Your task to perform on an android device: set default search engine in the chrome app Image 0: 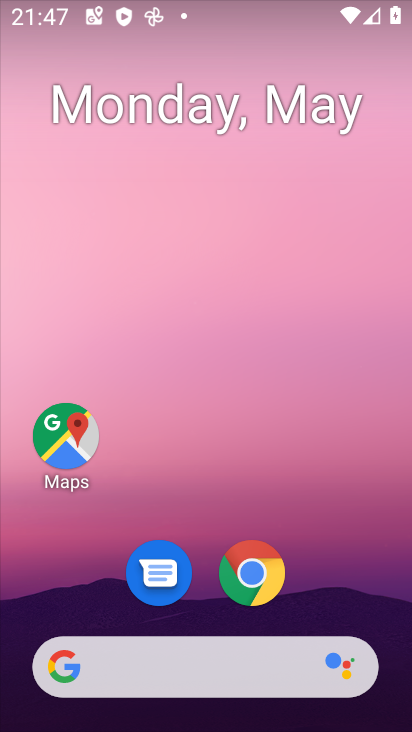
Step 0: drag from (355, 574) to (331, 503)
Your task to perform on an android device: set default search engine in the chrome app Image 1: 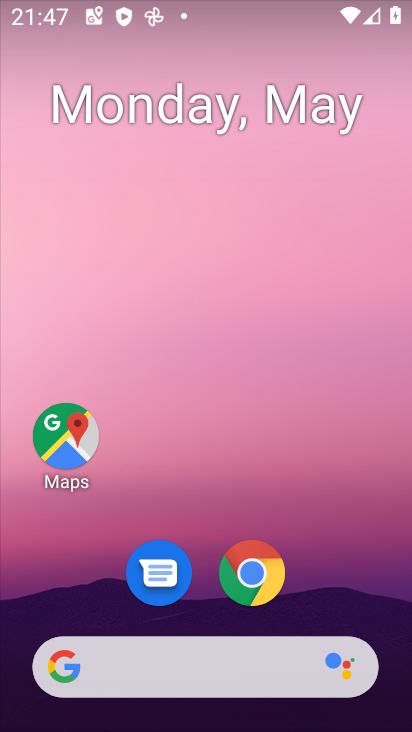
Step 1: click (254, 578)
Your task to perform on an android device: set default search engine in the chrome app Image 2: 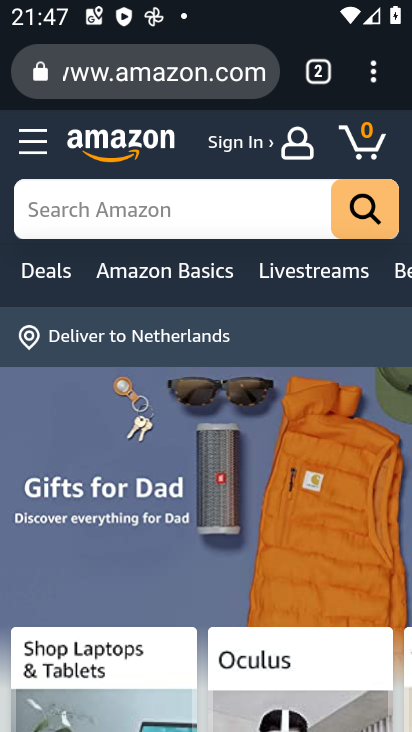
Step 2: click (370, 73)
Your task to perform on an android device: set default search engine in the chrome app Image 3: 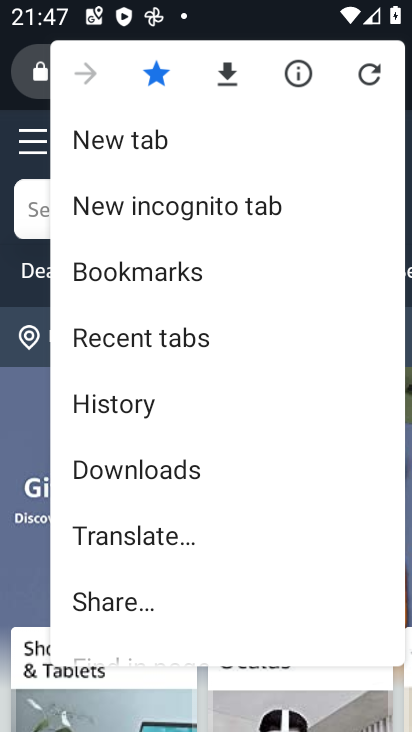
Step 3: drag from (246, 539) to (258, 282)
Your task to perform on an android device: set default search engine in the chrome app Image 4: 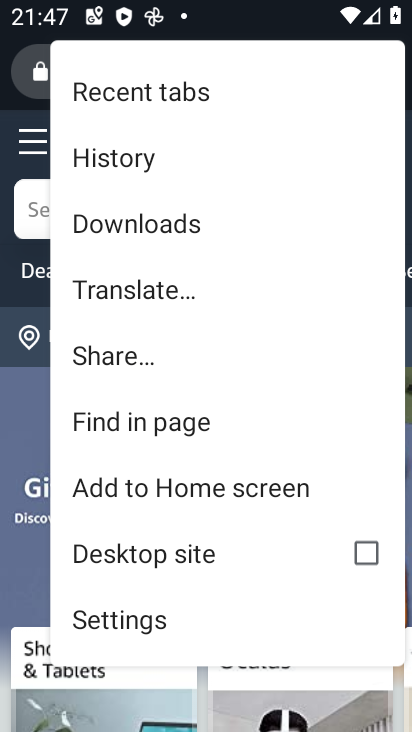
Step 4: click (151, 623)
Your task to perform on an android device: set default search engine in the chrome app Image 5: 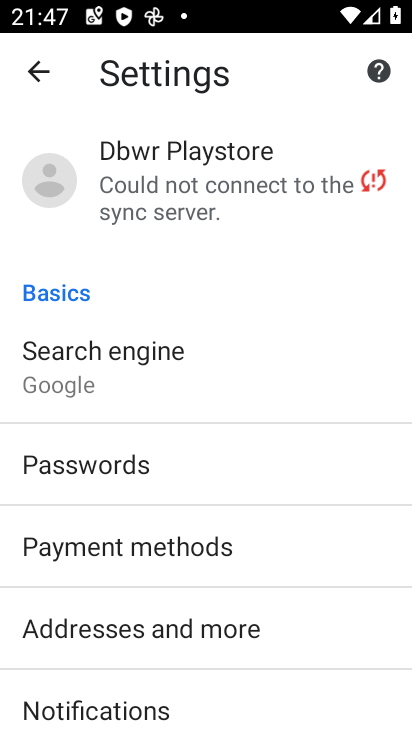
Step 5: drag from (208, 571) to (257, 261)
Your task to perform on an android device: set default search engine in the chrome app Image 6: 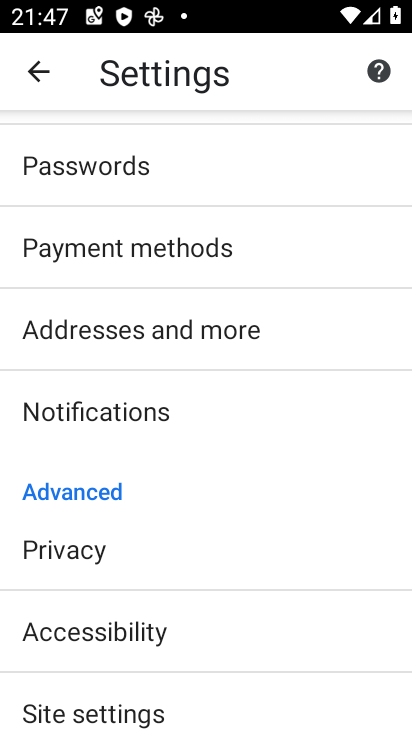
Step 6: drag from (221, 592) to (227, 304)
Your task to perform on an android device: set default search engine in the chrome app Image 7: 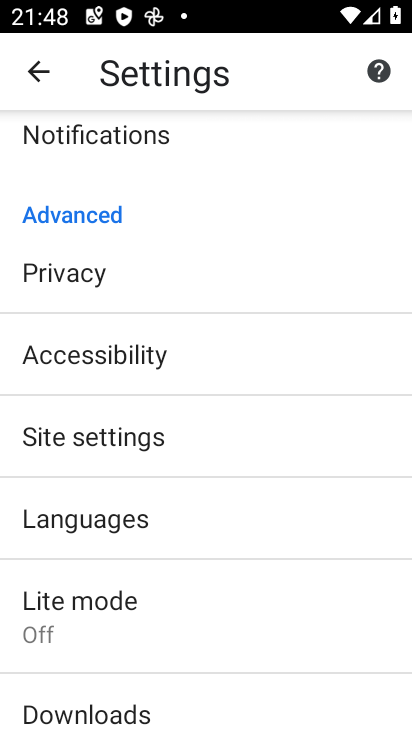
Step 7: drag from (268, 197) to (381, 715)
Your task to perform on an android device: set default search engine in the chrome app Image 8: 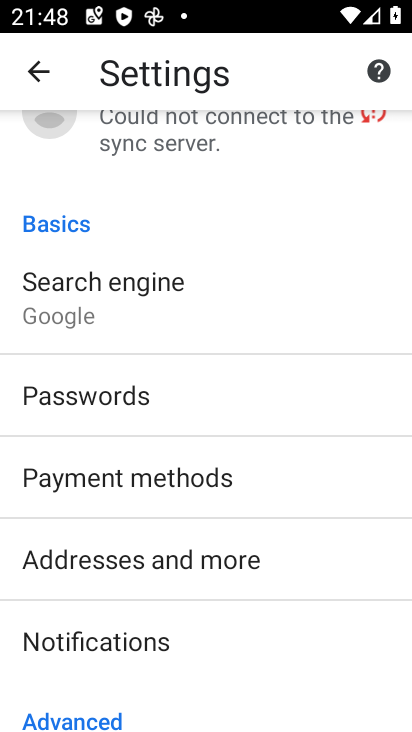
Step 8: click (225, 298)
Your task to perform on an android device: set default search engine in the chrome app Image 9: 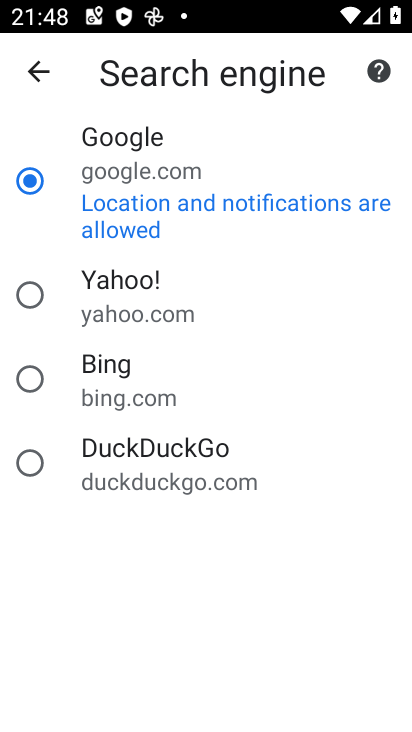
Step 9: click (166, 302)
Your task to perform on an android device: set default search engine in the chrome app Image 10: 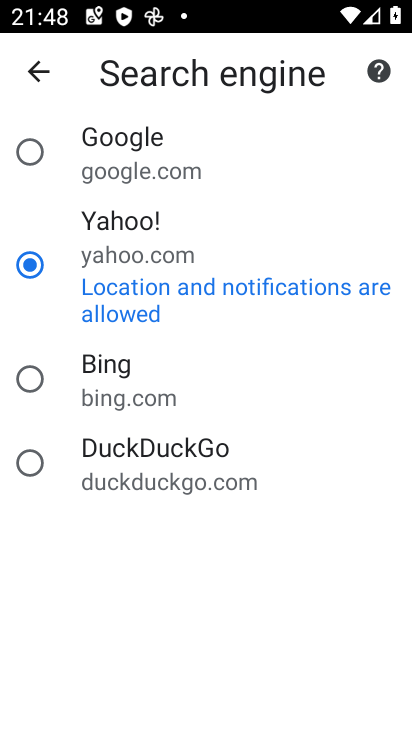
Step 10: task complete